Your task to perform on an android device: turn off smart reply in the gmail app Image 0: 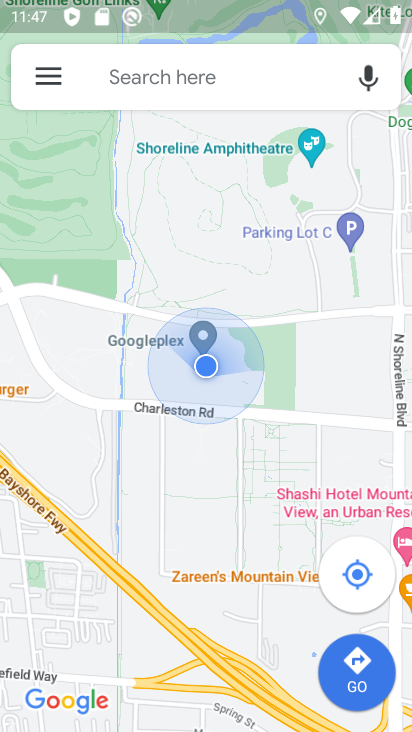
Step 0: press home button
Your task to perform on an android device: turn off smart reply in the gmail app Image 1: 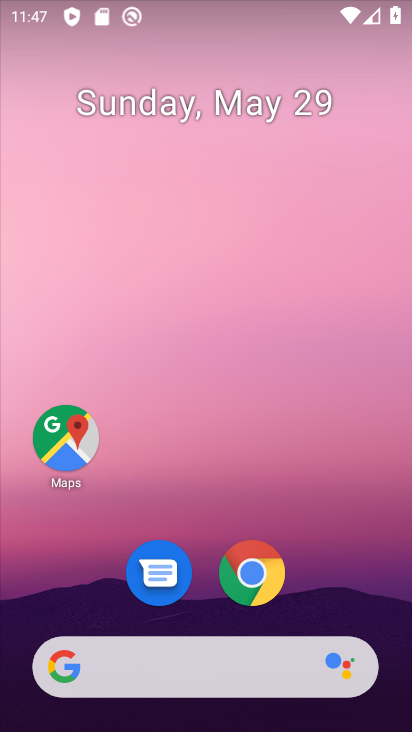
Step 1: drag from (203, 653) to (63, 27)
Your task to perform on an android device: turn off smart reply in the gmail app Image 2: 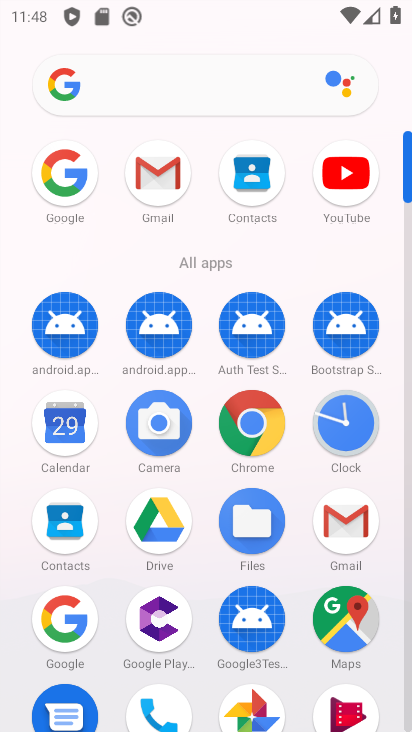
Step 2: click (177, 199)
Your task to perform on an android device: turn off smart reply in the gmail app Image 3: 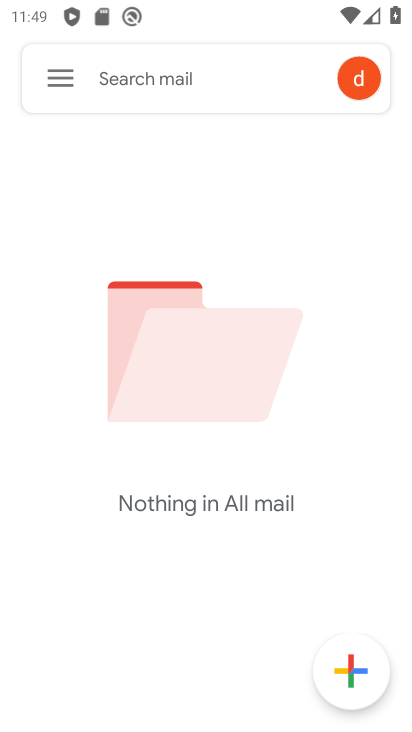
Step 3: click (54, 71)
Your task to perform on an android device: turn off smart reply in the gmail app Image 4: 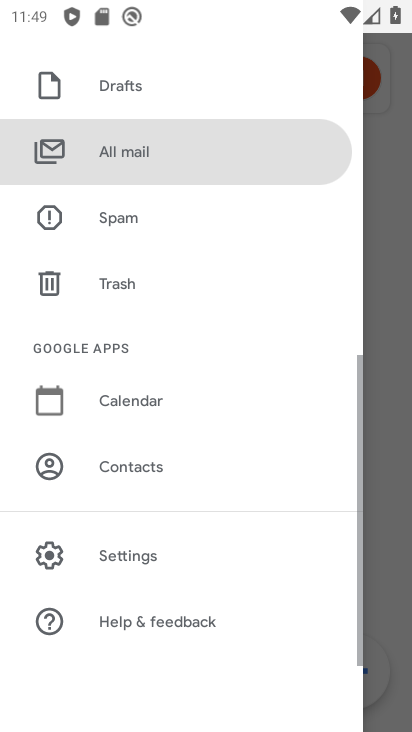
Step 4: drag from (140, 565) to (142, 49)
Your task to perform on an android device: turn off smart reply in the gmail app Image 5: 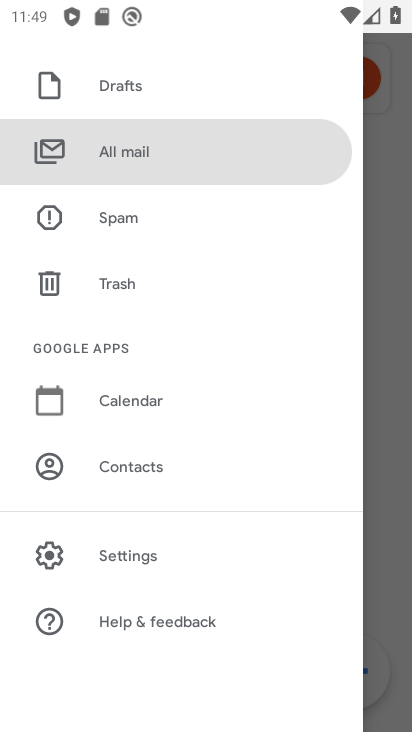
Step 5: click (121, 561)
Your task to perform on an android device: turn off smart reply in the gmail app Image 6: 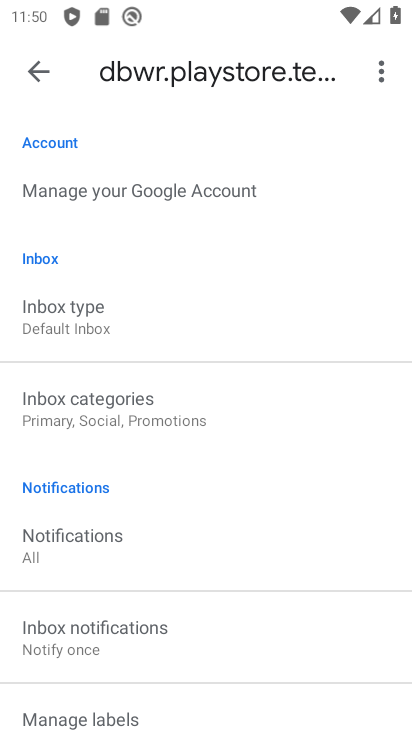
Step 6: drag from (142, 619) to (218, 15)
Your task to perform on an android device: turn off smart reply in the gmail app Image 7: 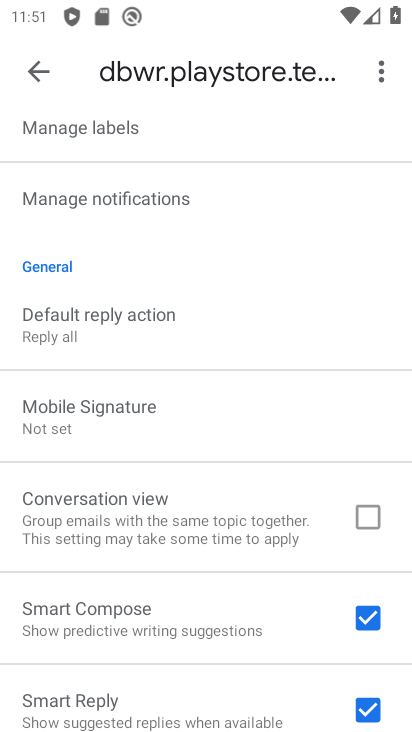
Step 7: click (367, 691)
Your task to perform on an android device: turn off smart reply in the gmail app Image 8: 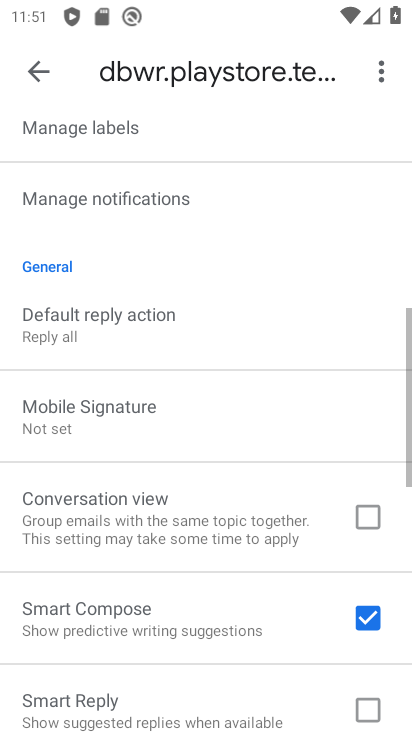
Step 8: task complete